Your task to perform on an android device: Go to location settings Image 0: 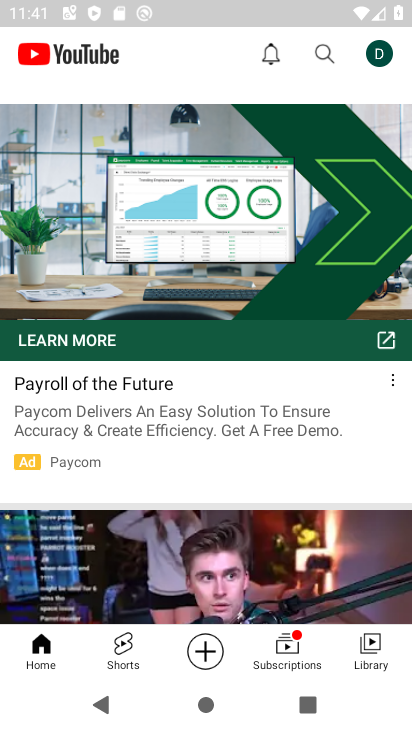
Step 0: press home button
Your task to perform on an android device: Go to location settings Image 1: 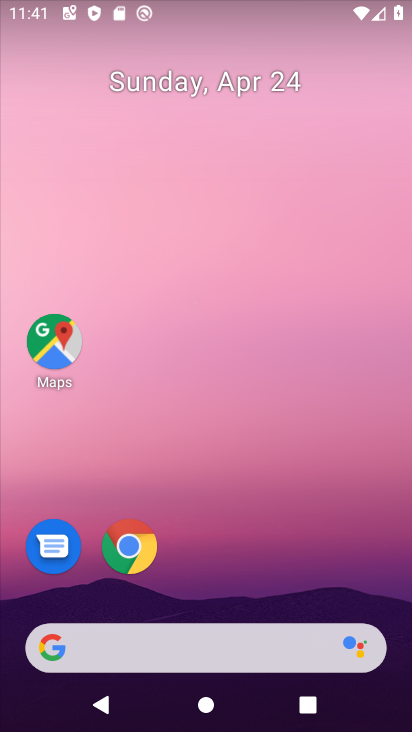
Step 1: drag from (230, 587) to (225, 95)
Your task to perform on an android device: Go to location settings Image 2: 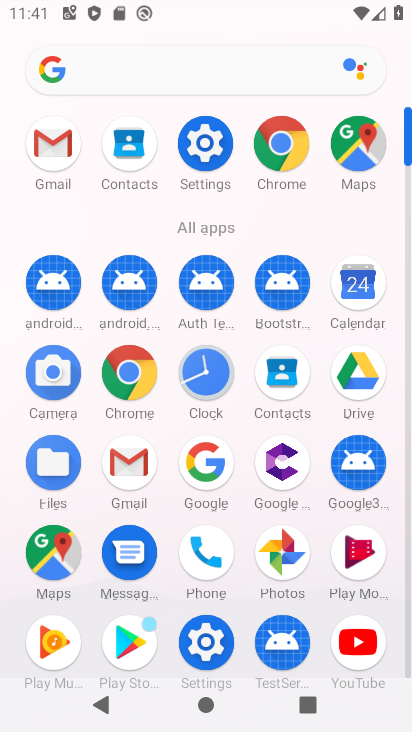
Step 2: click (212, 150)
Your task to perform on an android device: Go to location settings Image 3: 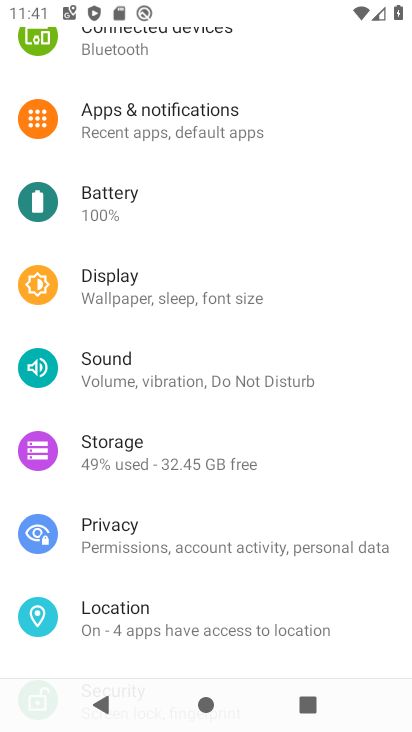
Step 3: click (155, 604)
Your task to perform on an android device: Go to location settings Image 4: 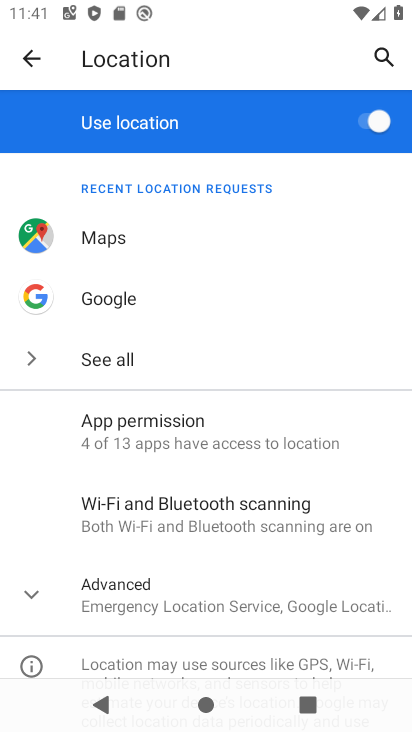
Step 4: drag from (190, 606) to (256, 301)
Your task to perform on an android device: Go to location settings Image 5: 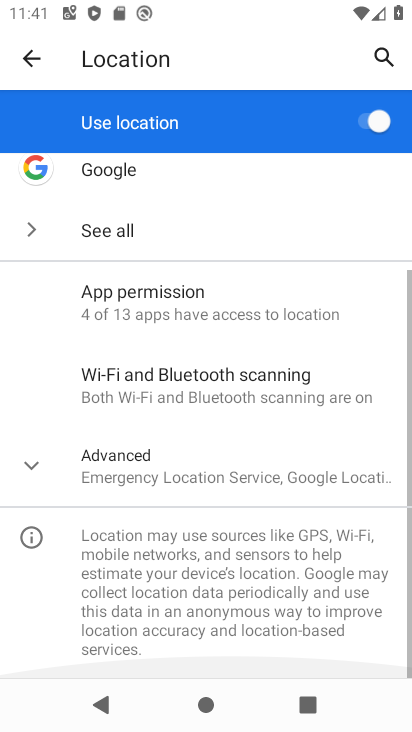
Step 5: drag from (252, 571) to (276, 306)
Your task to perform on an android device: Go to location settings Image 6: 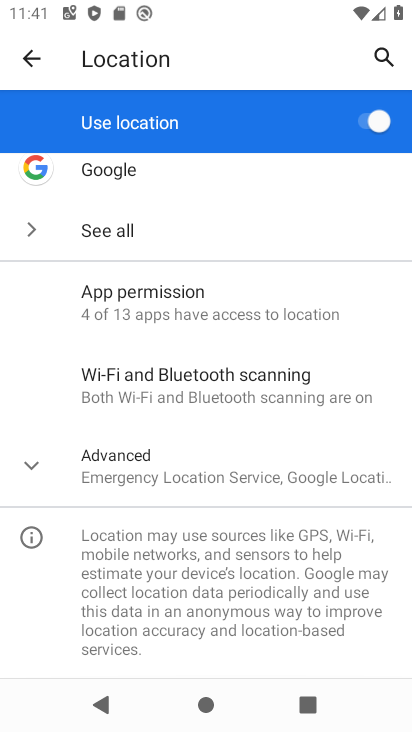
Step 6: drag from (238, 554) to (241, 368)
Your task to perform on an android device: Go to location settings Image 7: 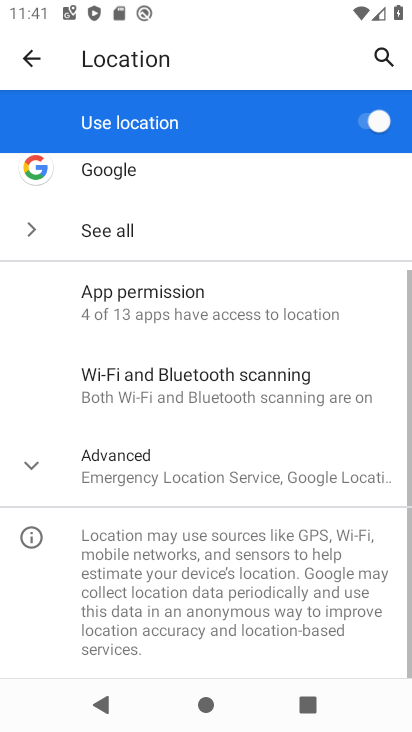
Step 7: click (127, 445)
Your task to perform on an android device: Go to location settings Image 8: 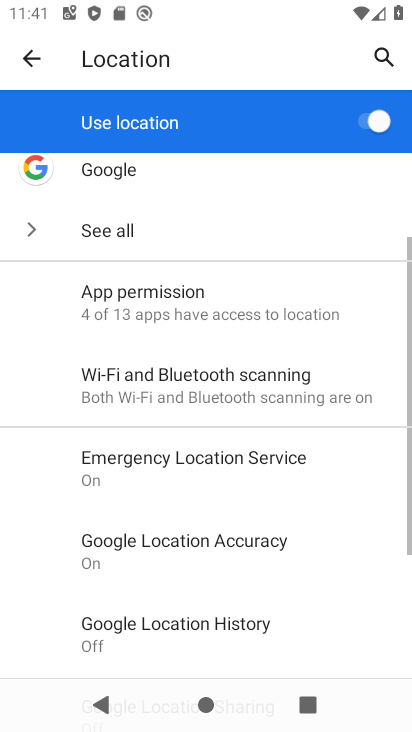
Step 8: task complete